Your task to perform on an android device: star an email in the gmail app Image 0: 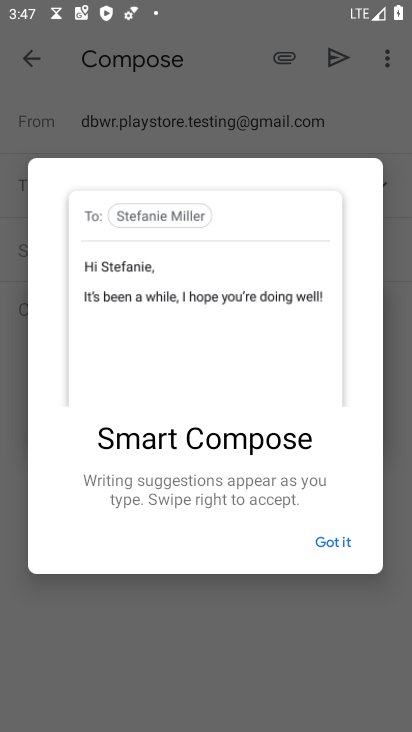
Step 0: press home button
Your task to perform on an android device: star an email in the gmail app Image 1: 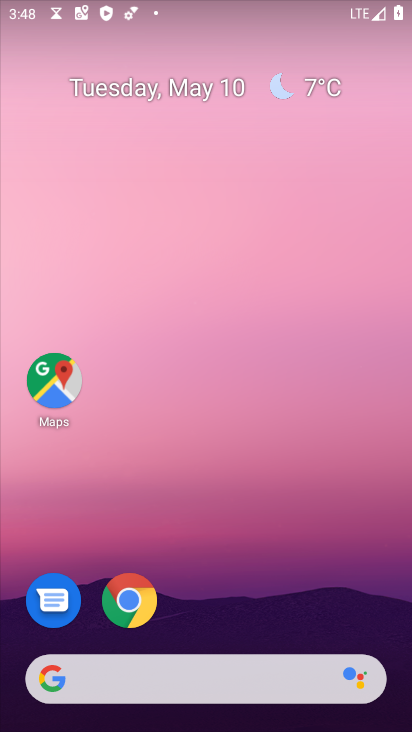
Step 1: drag from (271, 578) to (286, 324)
Your task to perform on an android device: star an email in the gmail app Image 2: 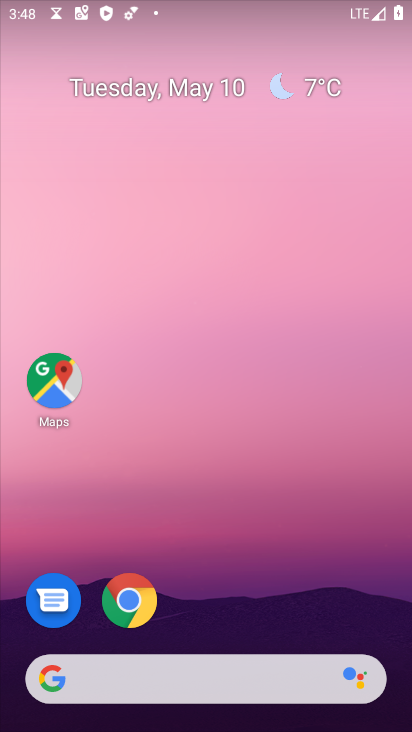
Step 2: drag from (283, 490) to (325, 222)
Your task to perform on an android device: star an email in the gmail app Image 3: 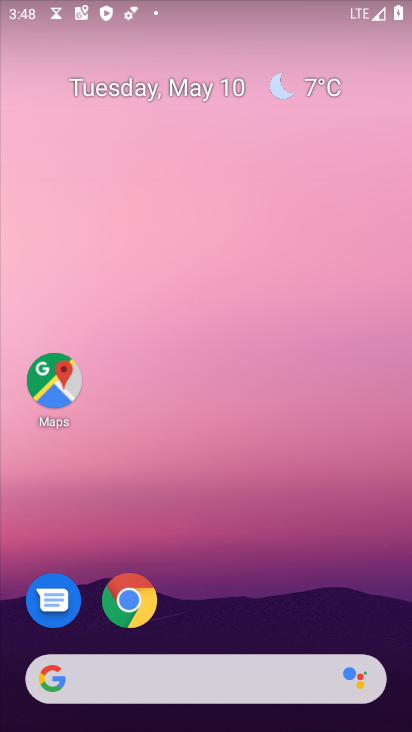
Step 3: drag from (282, 610) to (284, 195)
Your task to perform on an android device: star an email in the gmail app Image 4: 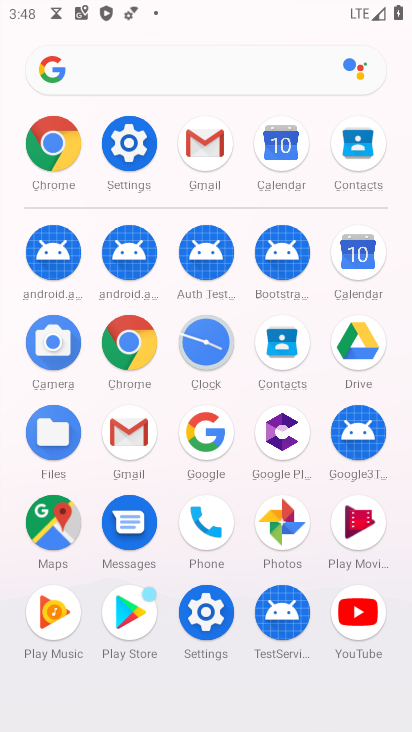
Step 4: click (207, 142)
Your task to perform on an android device: star an email in the gmail app Image 5: 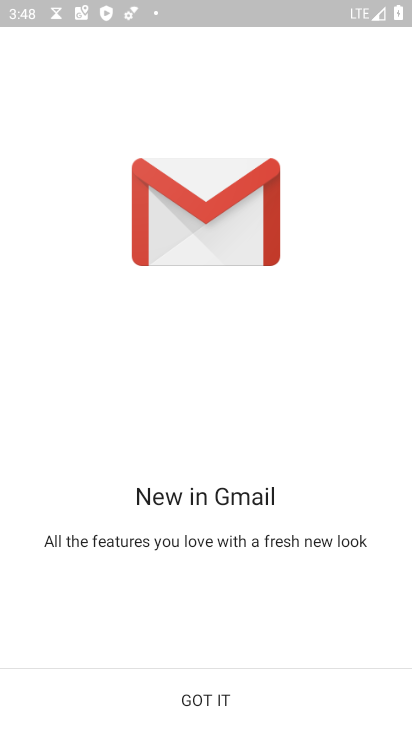
Step 5: task complete